Your task to perform on an android device: Set the phone to "Do not disturb". Image 0: 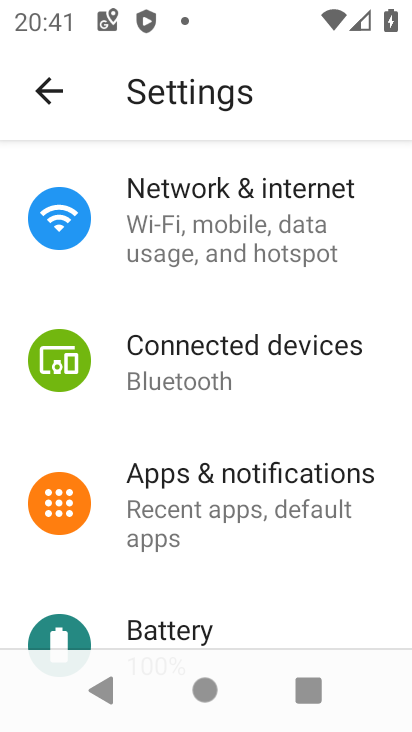
Step 0: press home button
Your task to perform on an android device: Set the phone to "Do not disturb". Image 1: 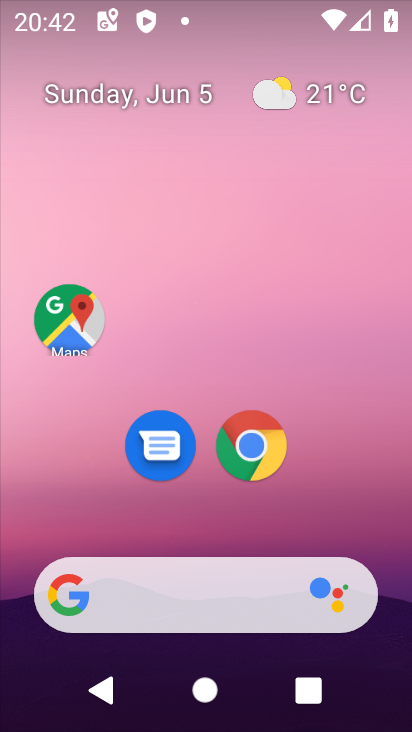
Step 1: drag from (235, 25) to (281, 576)
Your task to perform on an android device: Set the phone to "Do not disturb". Image 2: 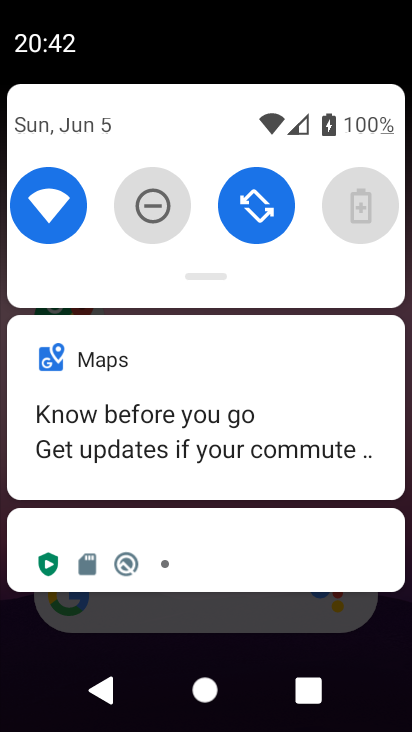
Step 2: drag from (196, 280) to (241, 560)
Your task to perform on an android device: Set the phone to "Do not disturb". Image 3: 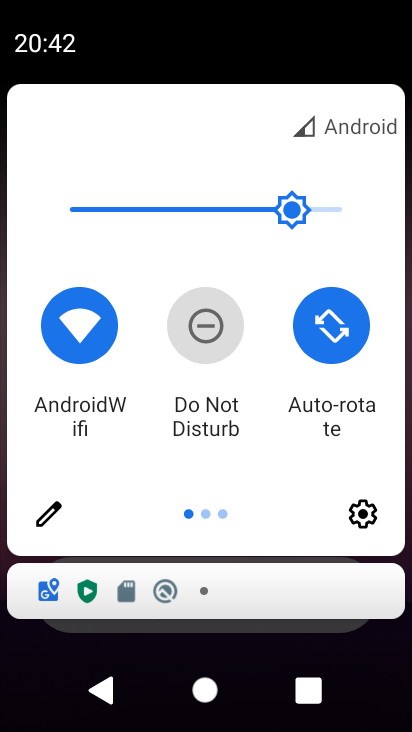
Step 3: click (202, 344)
Your task to perform on an android device: Set the phone to "Do not disturb". Image 4: 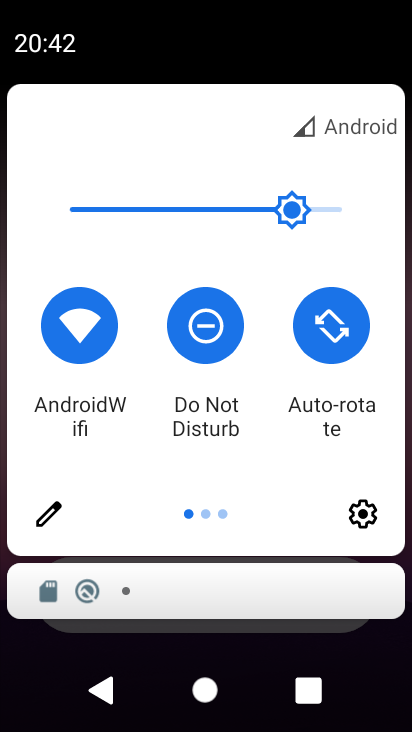
Step 4: task complete